Your task to perform on an android device: turn on data saver in the chrome app Image 0: 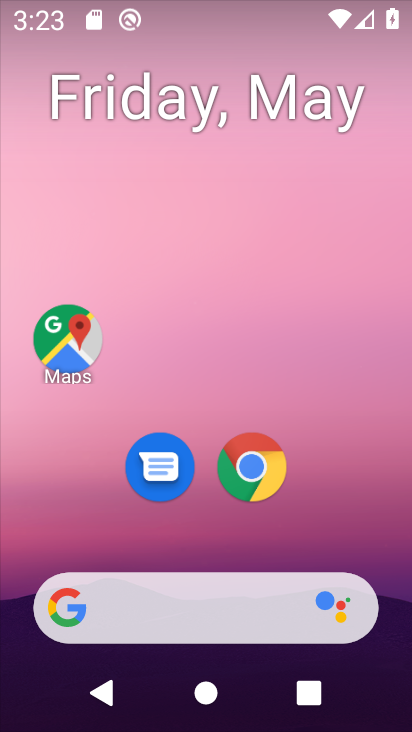
Step 0: click (263, 473)
Your task to perform on an android device: turn on data saver in the chrome app Image 1: 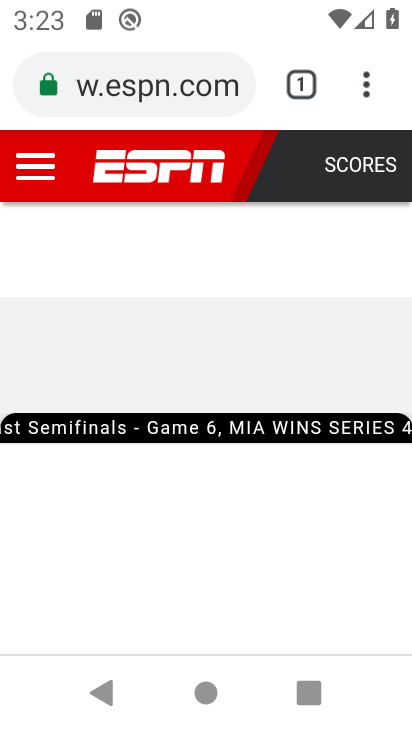
Step 1: click (371, 69)
Your task to perform on an android device: turn on data saver in the chrome app Image 2: 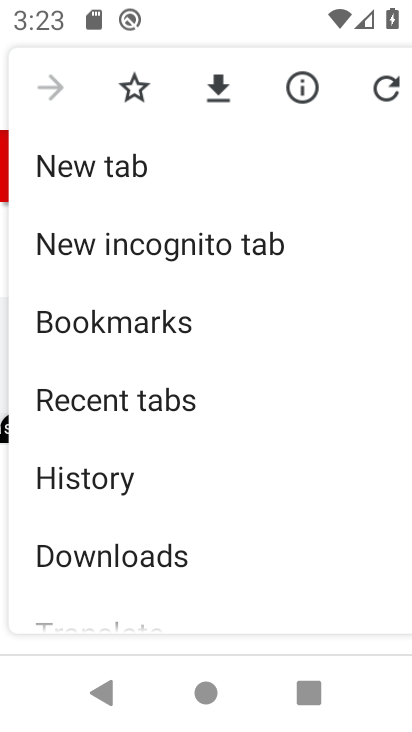
Step 2: drag from (208, 509) to (196, 197)
Your task to perform on an android device: turn on data saver in the chrome app Image 3: 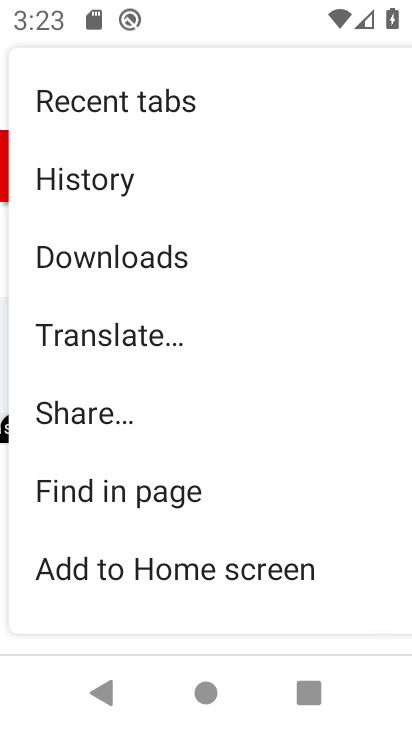
Step 3: drag from (186, 502) to (186, 214)
Your task to perform on an android device: turn on data saver in the chrome app Image 4: 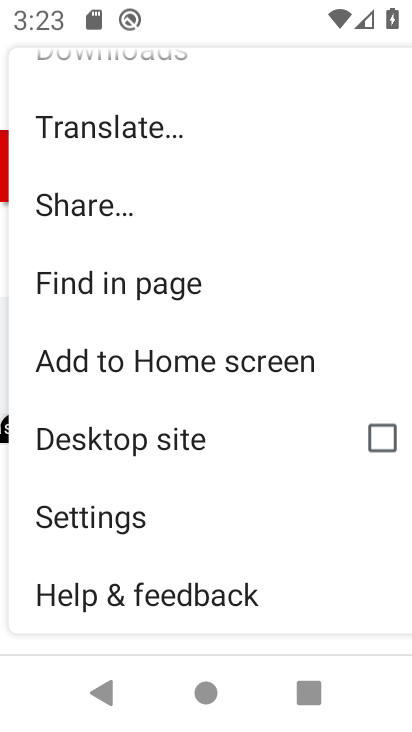
Step 4: click (129, 508)
Your task to perform on an android device: turn on data saver in the chrome app Image 5: 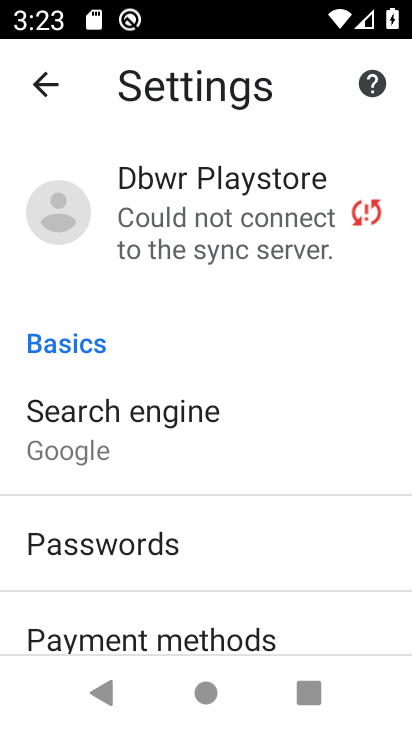
Step 5: drag from (206, 574) to (188, 206)
Your task to perform on an android device: turn on data saver in the chrome app Image 6: 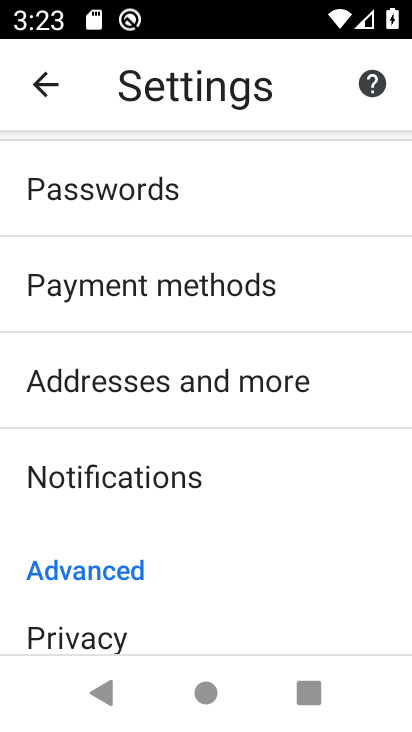
Step 6: drag from (196, 573) to (195, 258)
Your task to perform on an android device: turn on data saver in the chrome app Image 7: 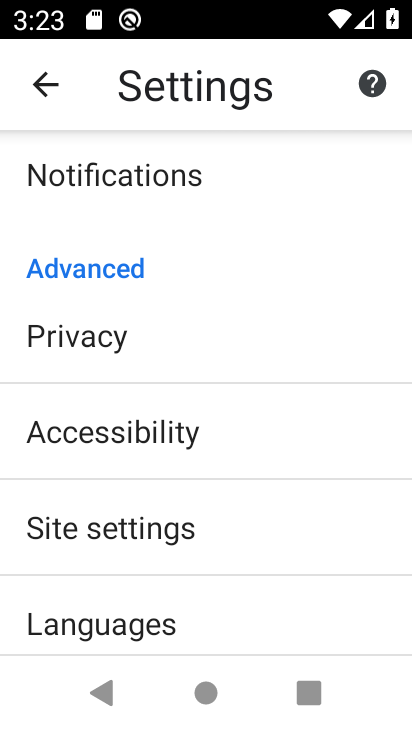
Step 7: drag from (172, 584) to (183, 417)
Your task to perform on an android device: turn on data saver in the chrome app Image 8: 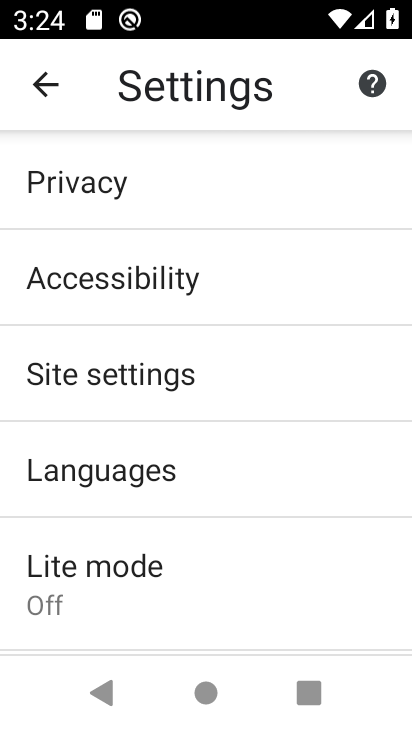
Step 8: click (109, 563)
Your task to perform on an android device: turn on data saver in the chrome app Image 9: 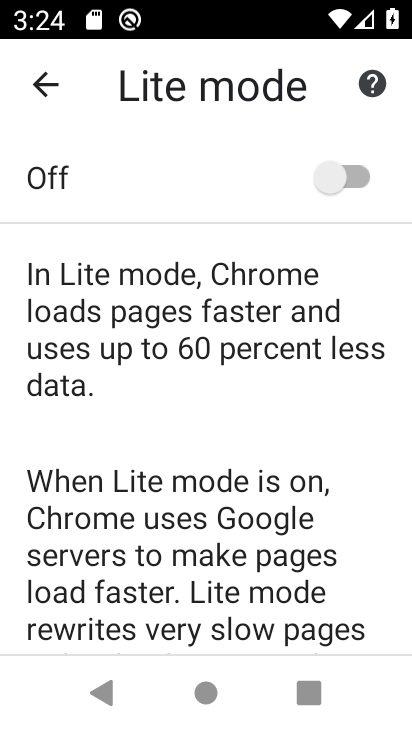
Step 9: click (347, 176)
Your task to perform on an android device: turn on data saver in the chrome app Image 10: 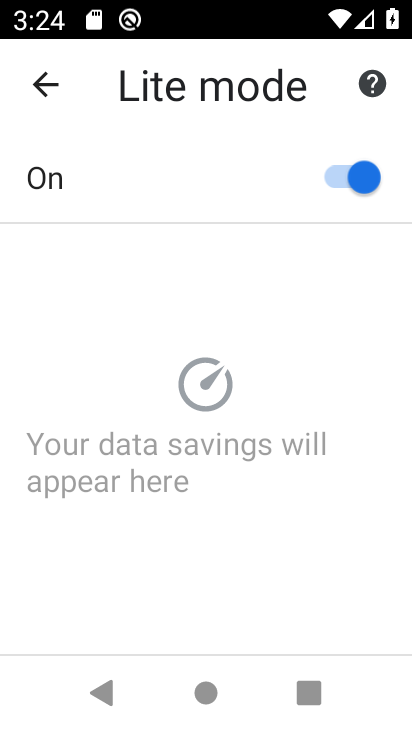
Step 10: task complete